Your task to perform on an android device: change keyboard looks Image 0: 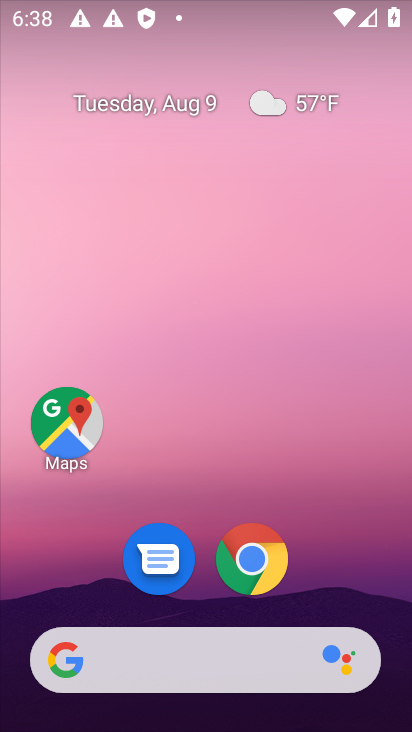
Step 0: drag from (196, 578) to (186, 137)
Your task to perform on an android device: change keyboard looks Image 1: 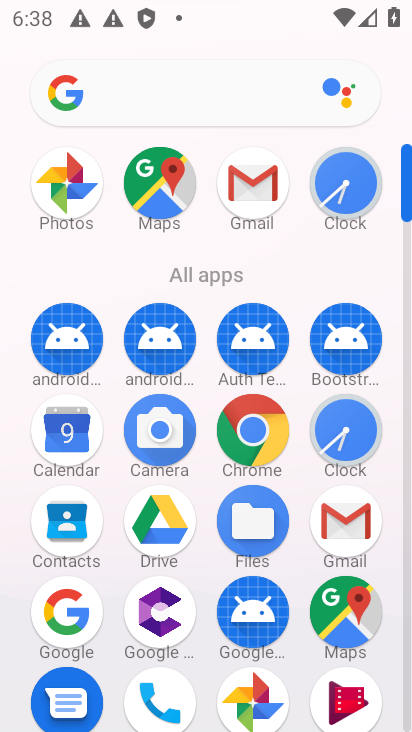
Step 1: drag from (291, 653) to (317, 263)
Your task to perform on an android device: change keyboard looks Image 2: 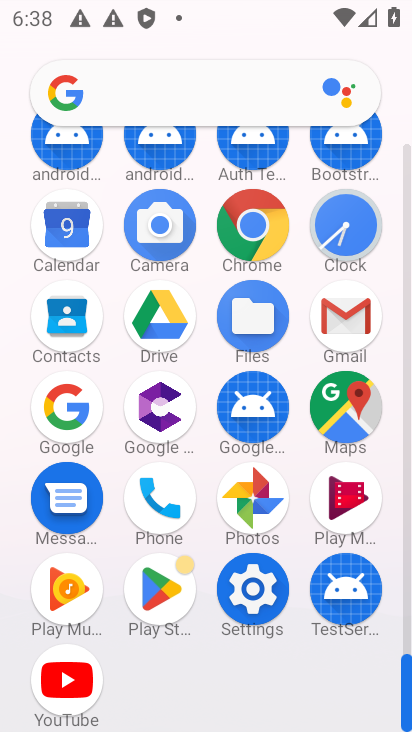
Step 2: click (245, 589)
Your task to perform on an android device: change keyboard looks Image 3: 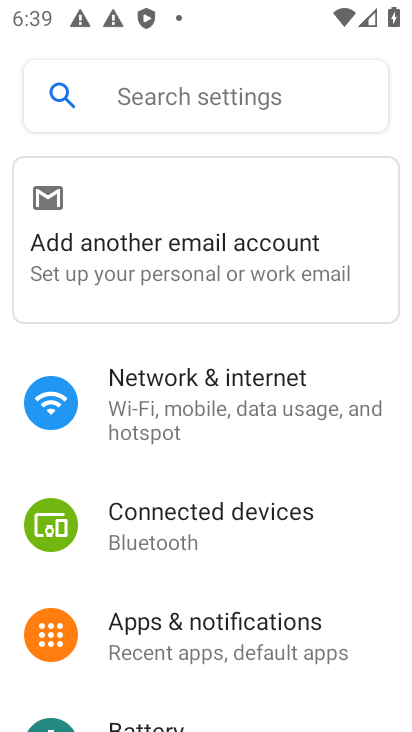
Step 3: drag from (204, 647) to (201, 280)
Your task to perform on an android device: change keyboard looks Image 4: 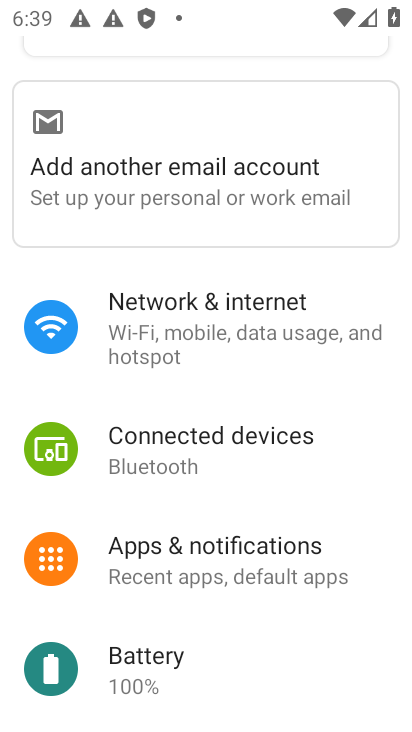
Step 4: drag from (201, 375) to (201, 260)
Your task to perform on an android device: change keyboard looks Image 5: 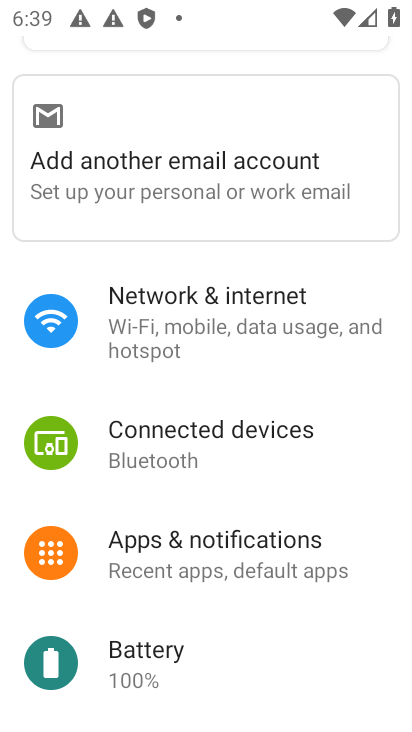
Step 5: drag from (231, 633) to (247, 285)
Your task to perform on an android device: change keyboard looks Image 6: 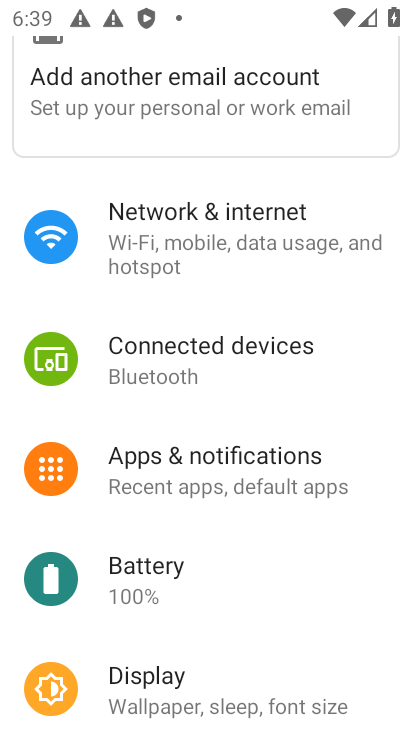
Step 6: drag from (244, 562) to (246, 280)
Your task to perform on an android device: change keyboard looks Image 7: 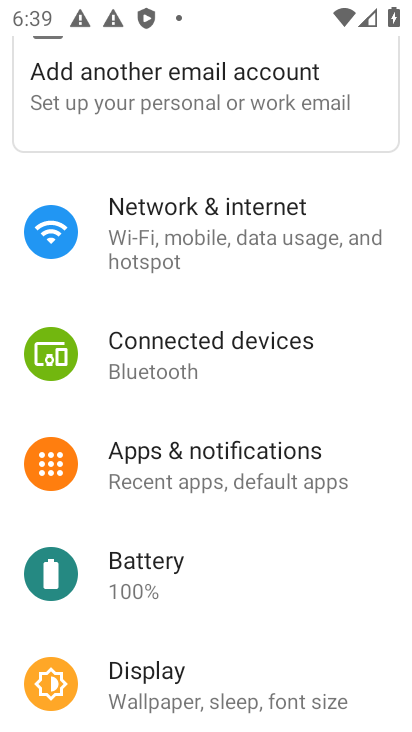
Step 7: drag from (212, 636) to (202, 289)
Your task to perform on an android device: change keyboard looks Image 8: 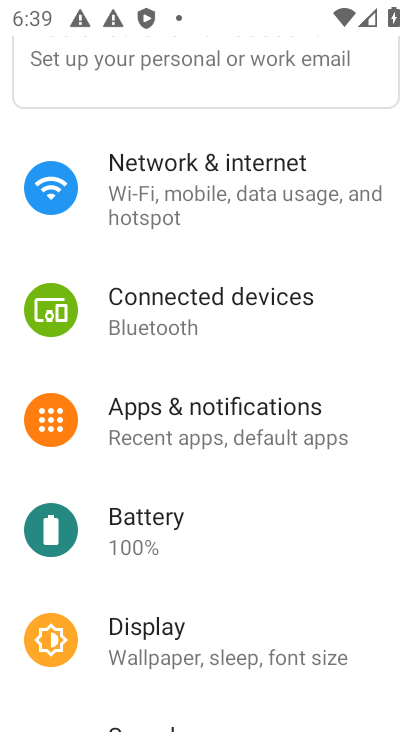
Step 8: drag from (222, 546) to (219, 101)
Your task to perform on an android device: change keyboard looks Image 9: 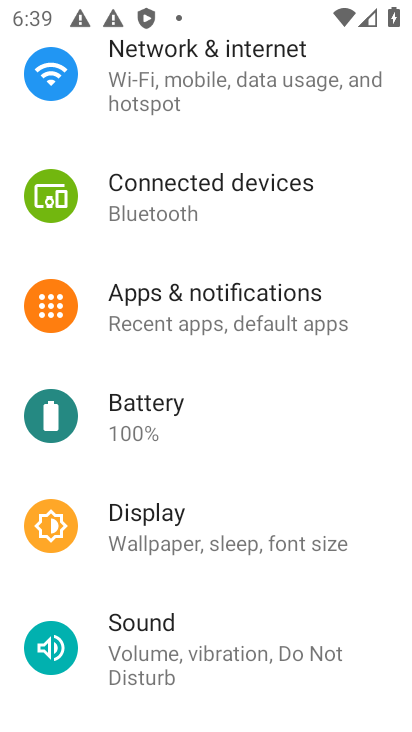
Step 9: drag from (210, 504) to (210, 232)
Your task to perform on an android device: change keyboard looks Image 10: 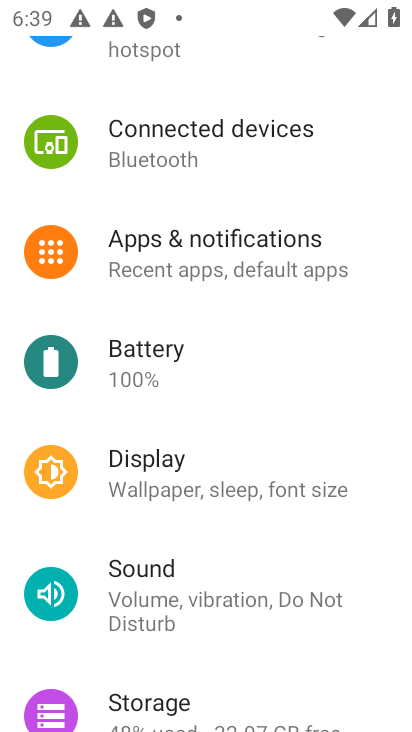
Step 10: drag from (209, 519) to (210, 383)
Your task to perform on an android device: change keyboard looks Image 11: 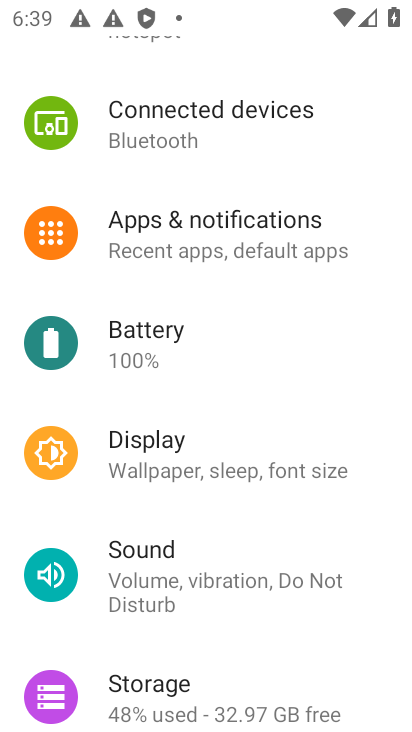
Step 11: drag from (180, 560) to (206, 89)
Your task to perform on an android device: change keyboard looks Image 12: 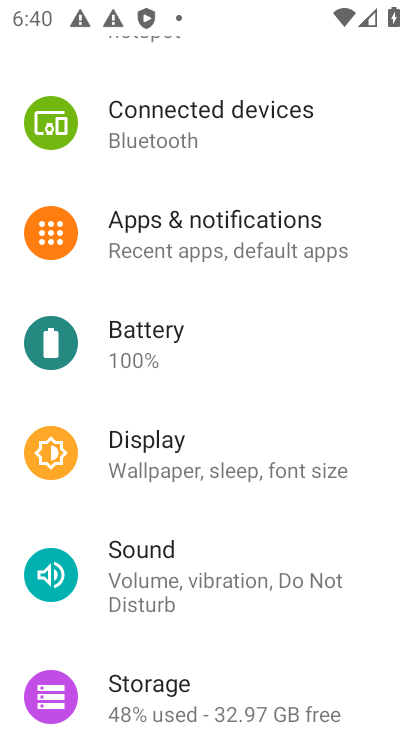
Step 12: drag from (233, 564) to (234, 211)
Your task to perform on an android device: change keyboard looks Image 13: 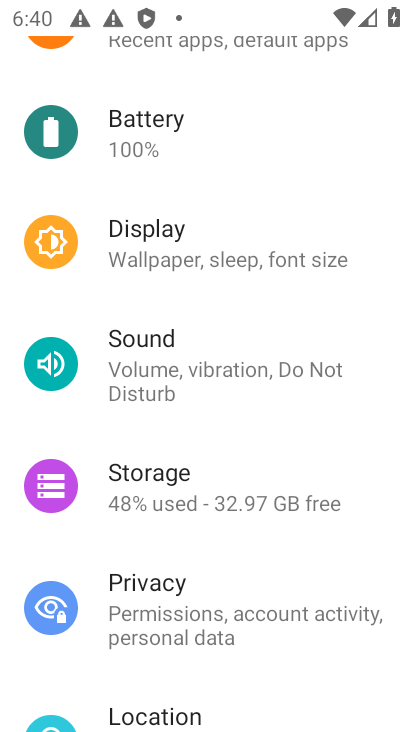
Step 13: drag from (205, 551) to (221, 201)
Your task to perform on an android device: change keyboard looks Image 14: 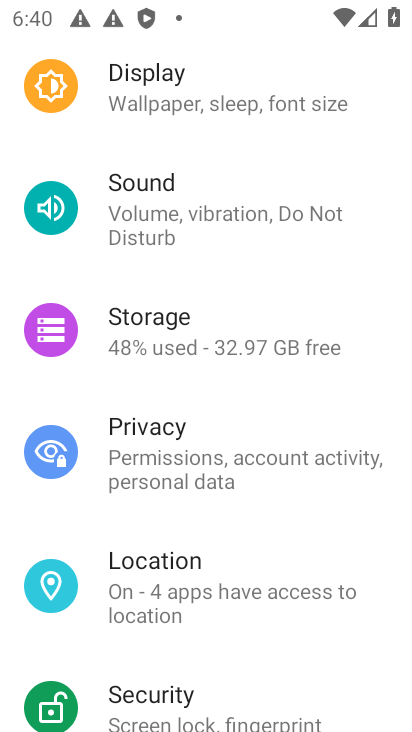
Step 14: drag from (246, 614) to (244, 263)
Your task to perform on an android device: change keyboard looks Image 15: 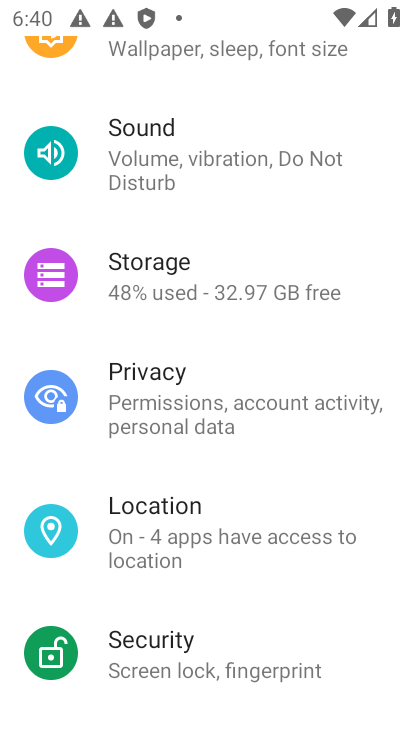
Step 15: drag from (216, 553) to (221, 220)
Your task to perform on an android device: change keyboard looks Image 16: 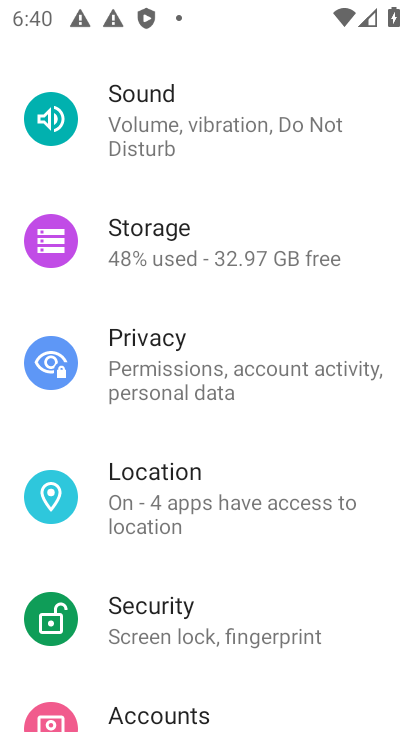
Step 16: drag from (228, 460) to (243, 324)
Your task to perform on an android device: change keyboard looks Image 17: 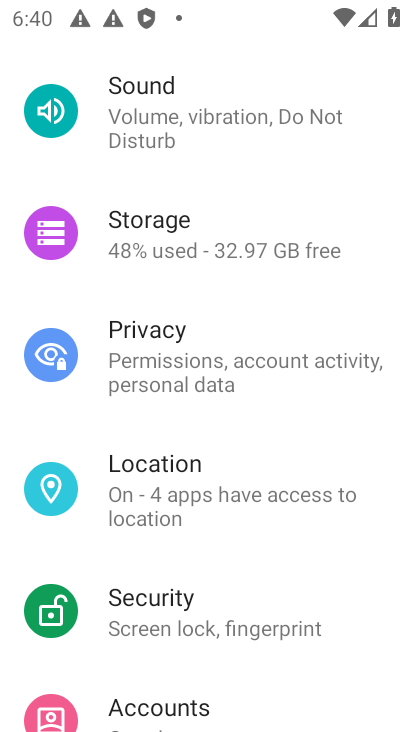
Step 17: drag from (235, 659) to (242, 366)
Your task to perform on an android device: change keyboard looks Image 18: 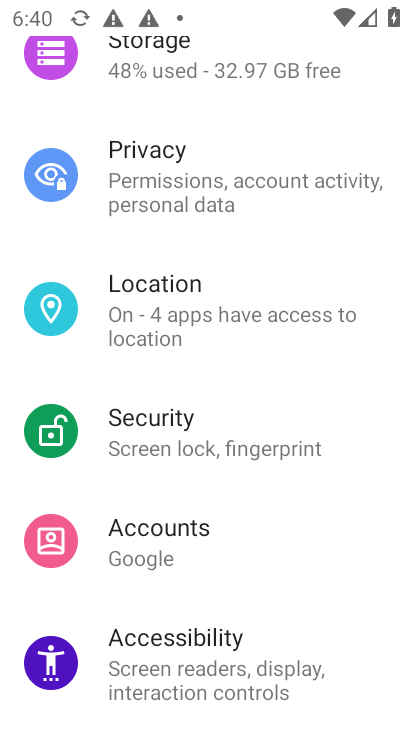
Step 18: drag from (240, 649) to (240, 261)
Your task to perform on an android device: change keyboard looks Image 19: 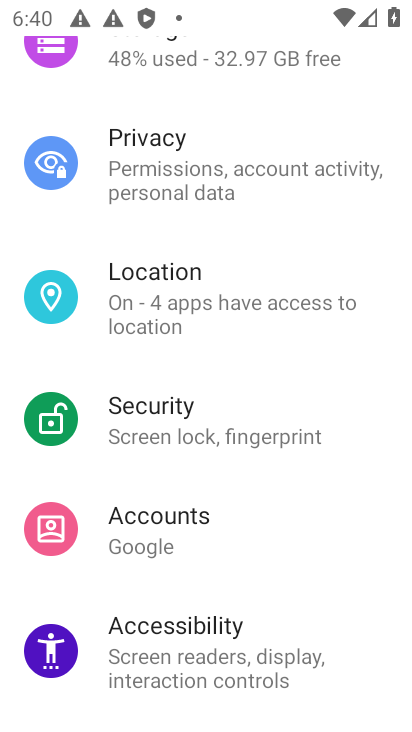
Step 19: drag from (305, 589) to (297, 329)
Your task to perform on an android device: change keyboard looks Image 20: 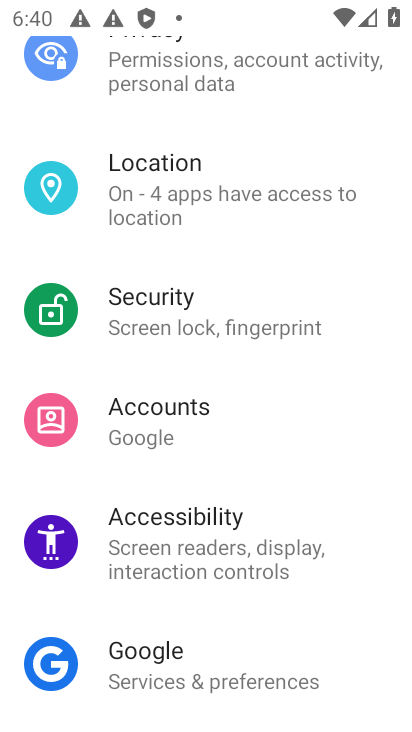
Step 20: drag from (279, 579) to (231, 182)
Your task to perform on an android device: change keyboard looks Image 21: 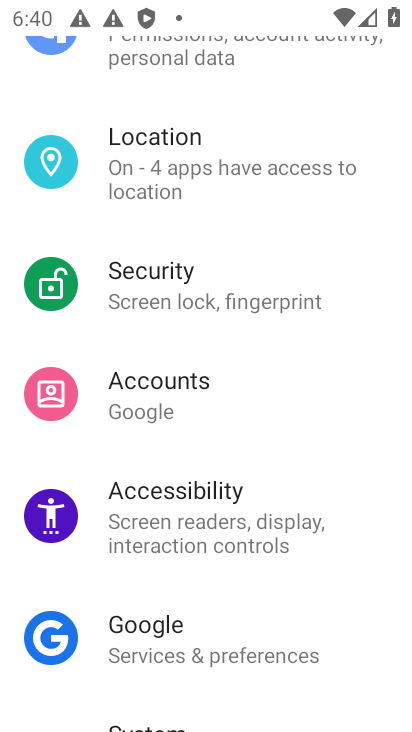
Step 21: drag from (229, 567) to (231, 318)
Your task to perform on an android device: change keyboard looks Image 22: 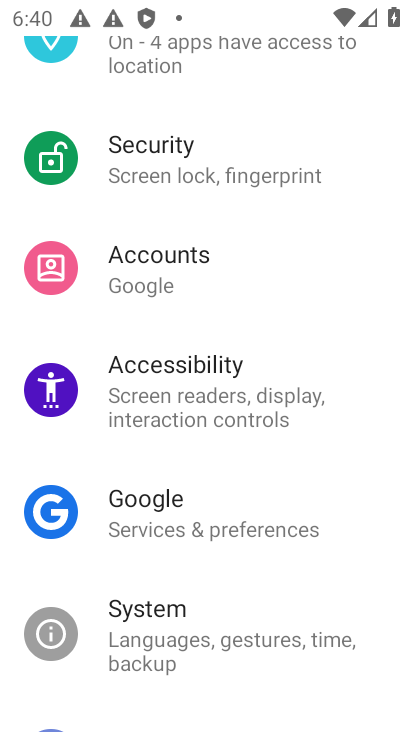
Step 22: click (195, 649)
Your task to perform on an android device: change keyboard looks Image 23: 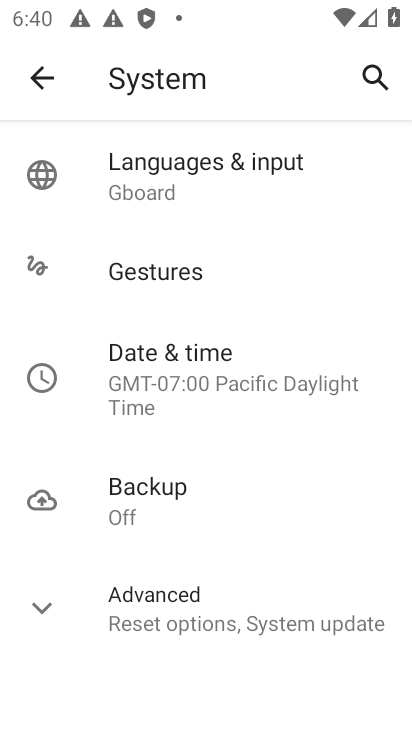
Step 23: click (141, 173)
Your task to perform on an android device: change keyboard looks Image 24: 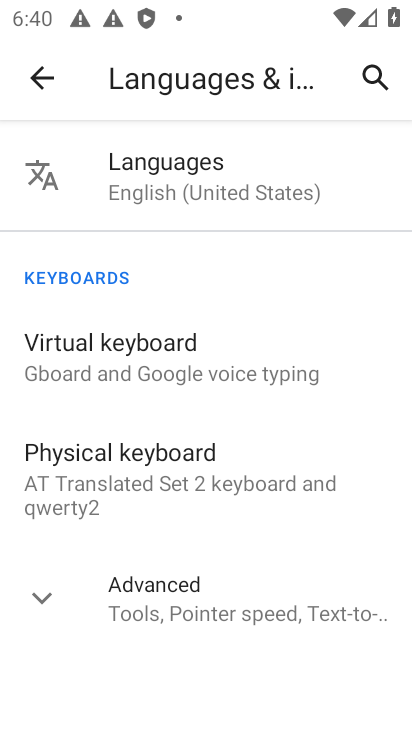
Step 24: click (143, 365)
Your task to perform on an android device: change keyboard looks Image 25: 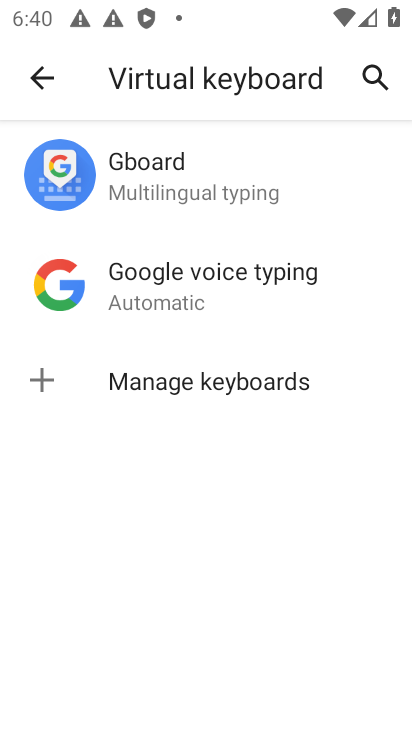
Step 25: click (157, 191)
Your task to perform on an android device: change keyboard looks Image 26: 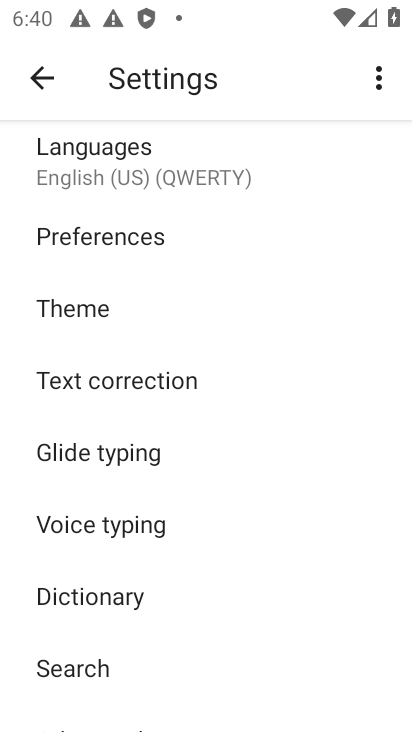
Step 26: click (77, 313)
Your task to perform on an android device: change keyboard looks Image 27: 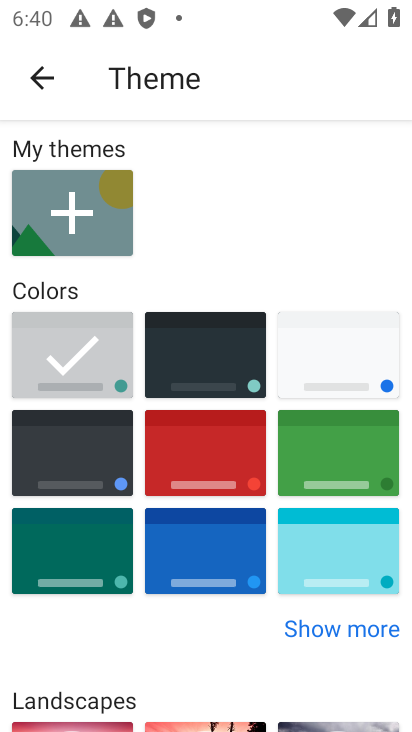
Step 27: click (209, 343)
Your task to perform on an android device: change keyboard looks Image 28: 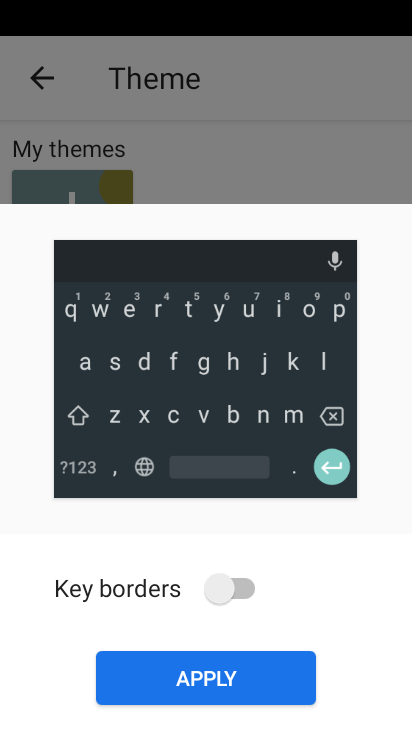
Step 28: click (222, 678)
Your task to perform on an android device: change keyboard looks Image 29: 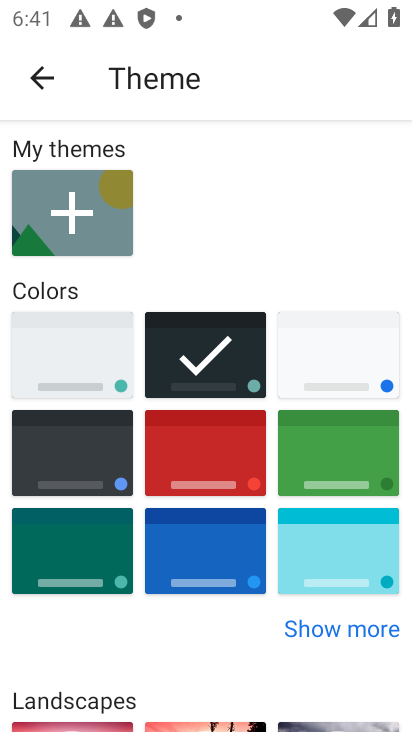
Step 29: task complete